Your task to perform on an android device: Go to CNN.com Image 0: 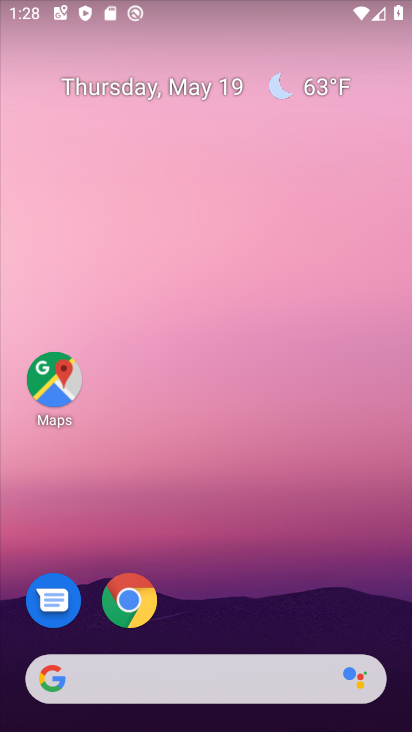
Step 0: click (122, 599)
Your task to perform on an android device: Go to CNN.com Image 1: 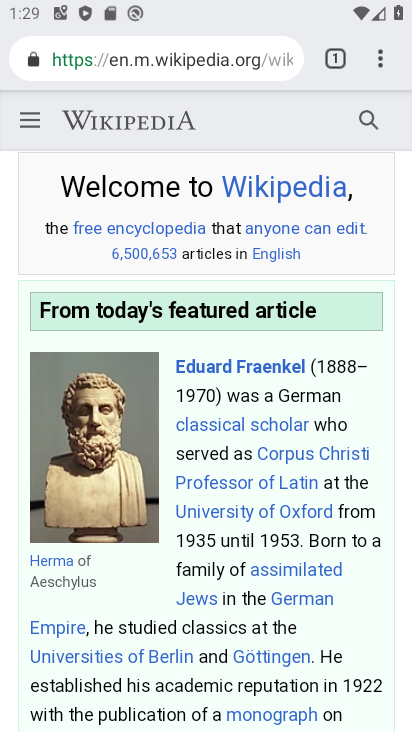
Step 1: click (201, 61)
Your task to perform on an android device: Go to CNN.com Image 2: 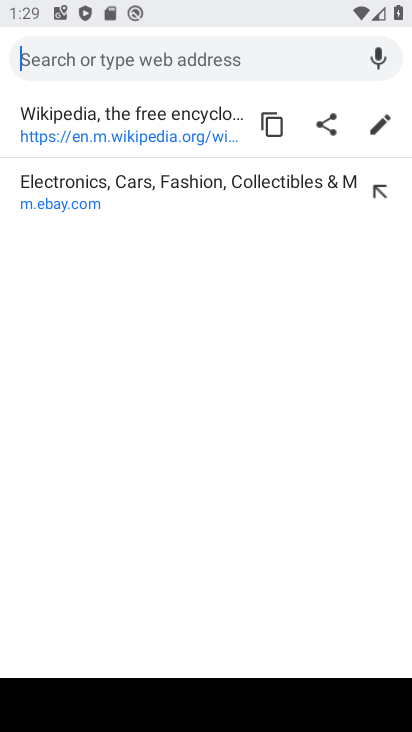
Step 2: type "cnn.com"
Your task to perform on an android device: Go to CNN.com Image 3: 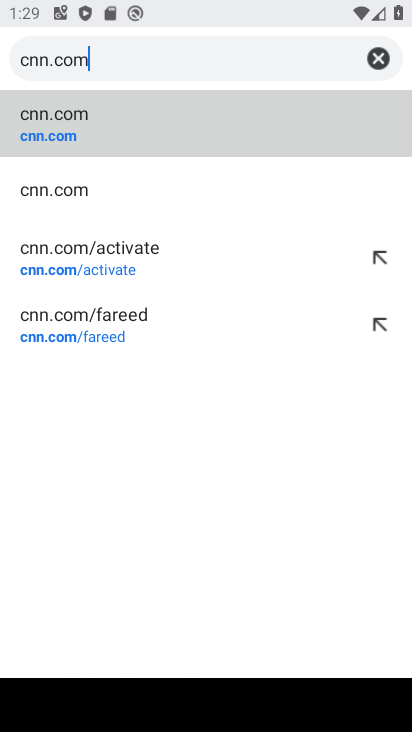
Step 3: click (88, 104)
Your task to perform on an android device: Go to CNN.com Image 4: 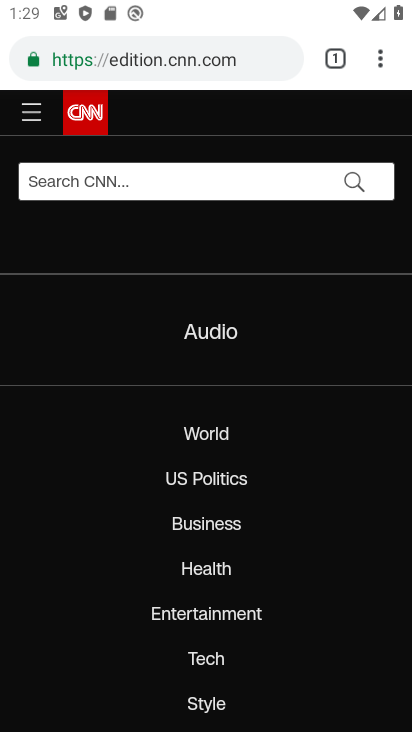
Step 4: task complete